Your task to perform on an android device: star an email in the gmail app Image 0: 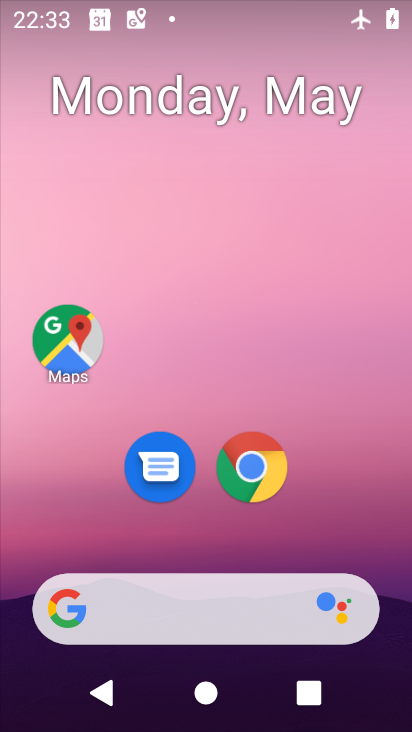
Step 0: drag from (309, 534) to (331, 275)
Your task to perform on an android device: star an email in the gmail app Image 1: 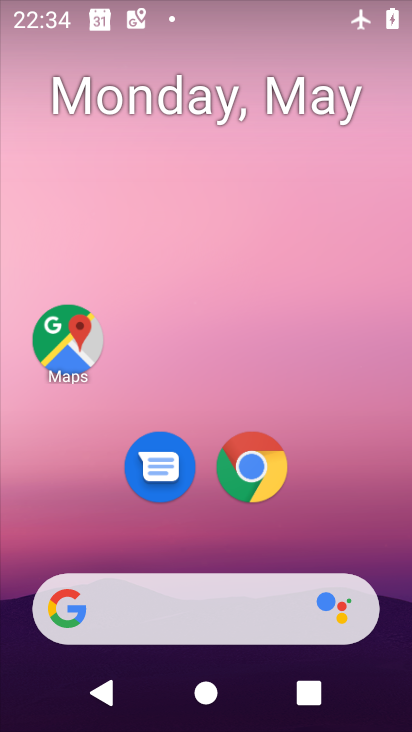
Step 1: drag from (290, 497) to (316, 189)
Your task to perform on an android device: star an email in the gmail app Image 2: 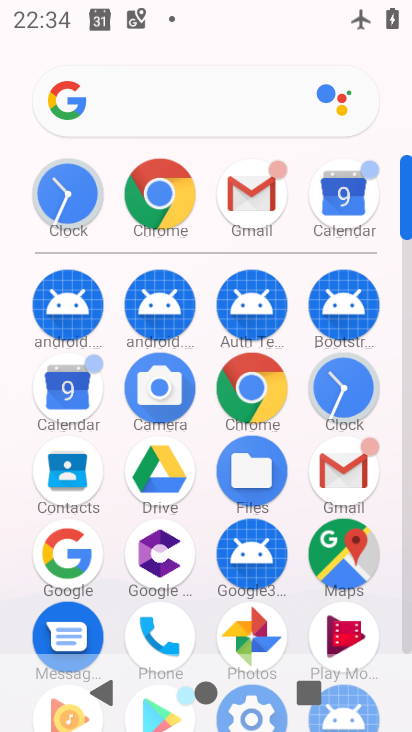
Step 2: click (343, 473)
Your task to perform on an android device: star an email in the gmail app Image 3: 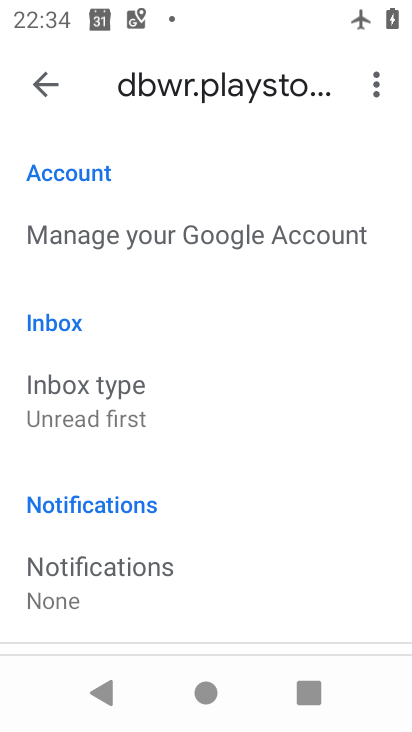
Step 3: drag from (229, 580) to (299, 298)
Your task to perform on an android device: star an email in the gmail app Image 4: 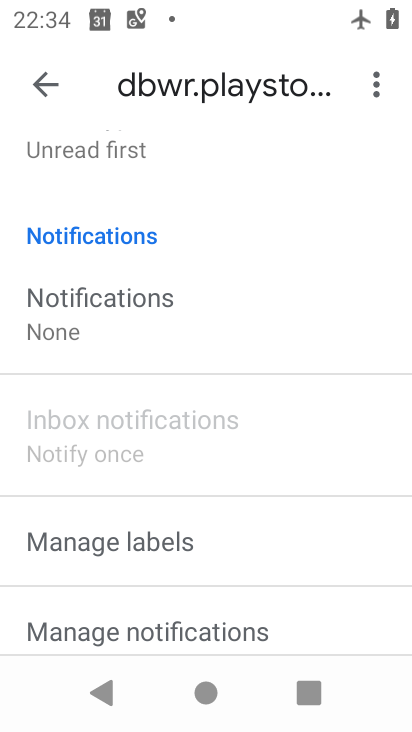
Step 4: click (38, 79)
Your task to perform on an android device: star an email in the gmail app Image 5: 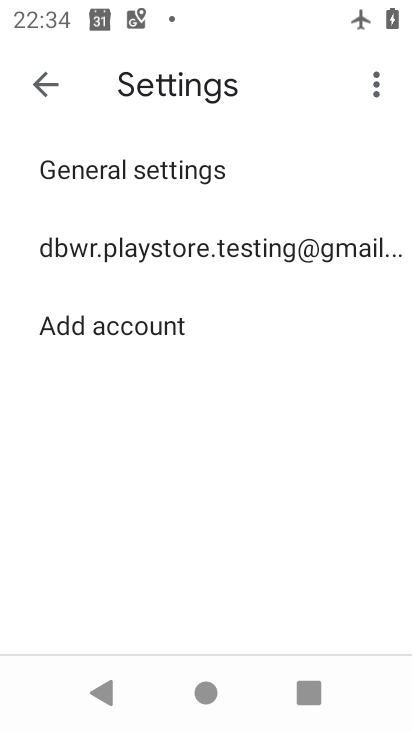
Step 5: click (52, 70)
Your task to perform on an android device: star an email in the gmail app Image 6: 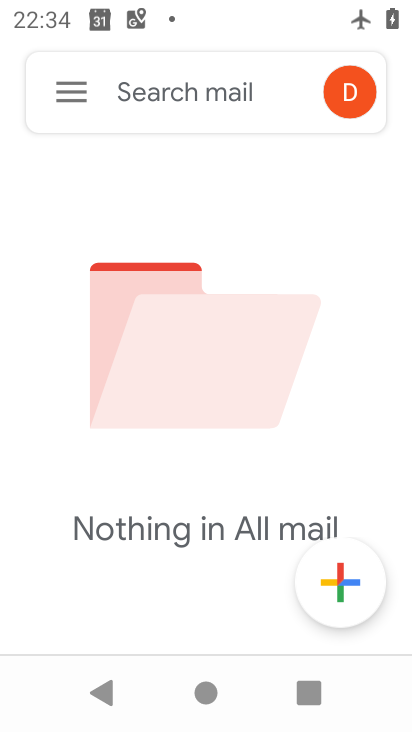
Step 6: click (61, 99)
Your task to perform on an android device: star an email in the gmail app Image 7: 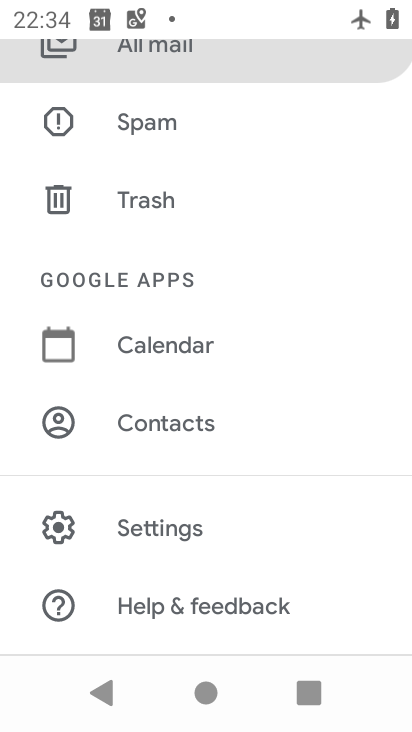
Step 7: drag from (169, 151) to (184, 626)
Your task to perform on an android device: star an email in the gmail app Image 8: 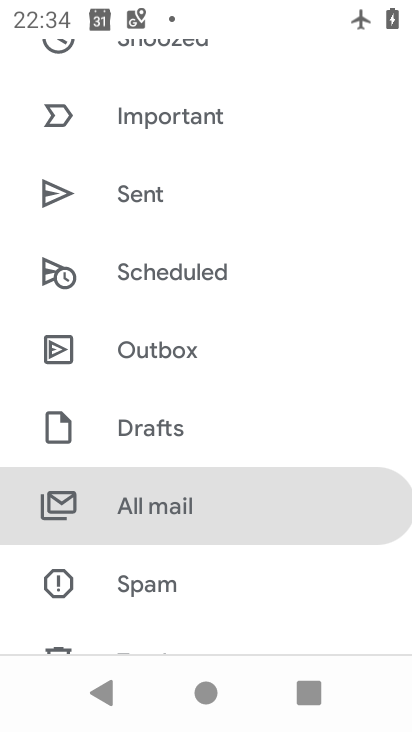
Step 8: drag from (191, 156) to (161, 559)
Your task to perform on an android device: star an email in the gmail app Image 9: 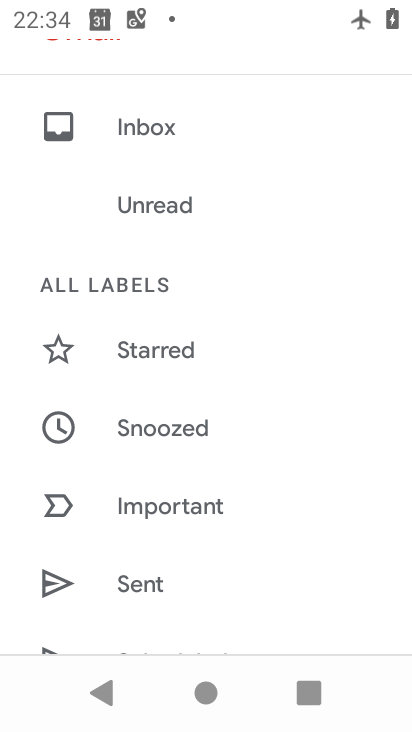
Step 9: click (140, 348)
Your task to perform on an android device: star an email in the gmail app Image 10: 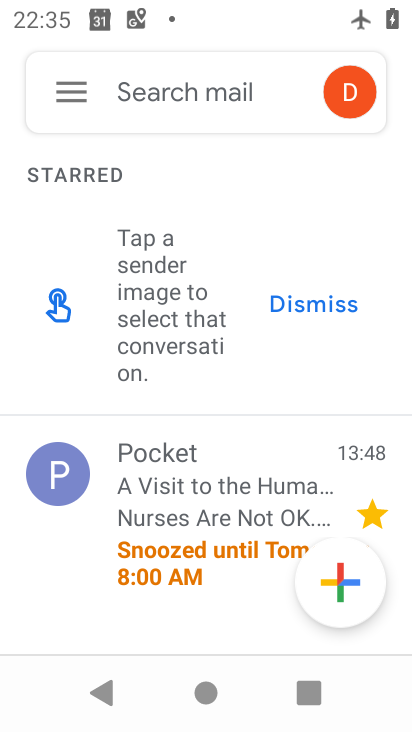
Step 10: task complete